Your task to perform on an android device: Is it going to rain today? Image 0: 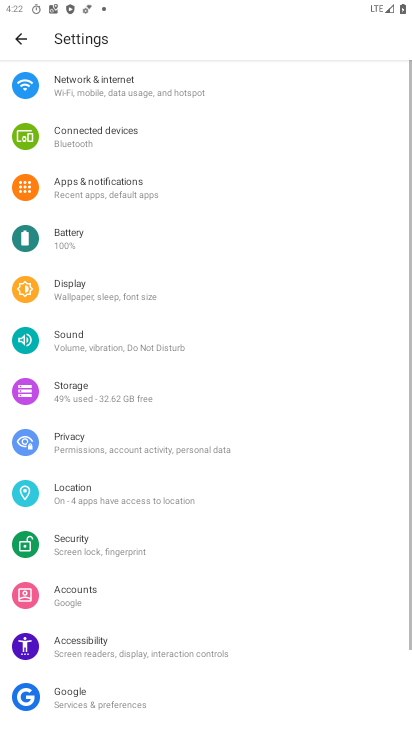
Step 0: press home button
Your task to perform on an android device: Is it going to rain today? Image 1: 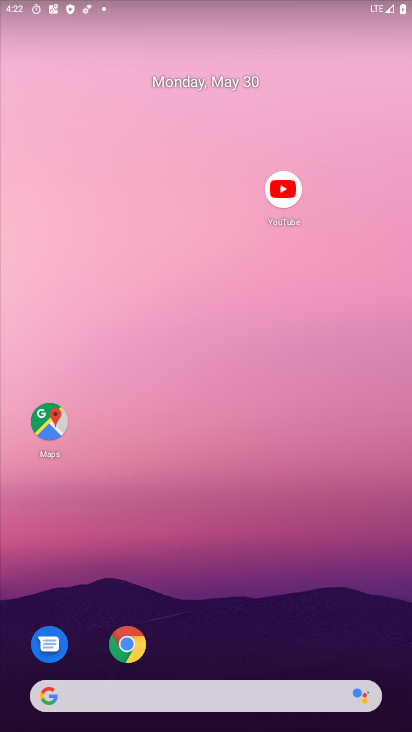
Step 1: click (200, 697)
Your task to perform on an android device: Is it going to rain today? Image 2: 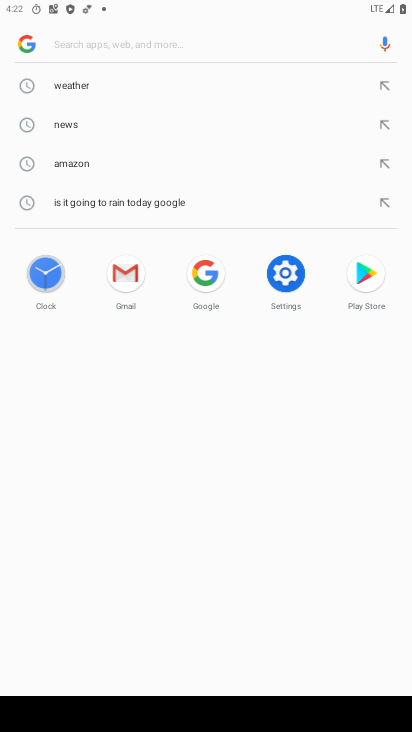
Step 2: click (71, 94)
Your task to perform on an android device: Is it going to rain today? Image 3: 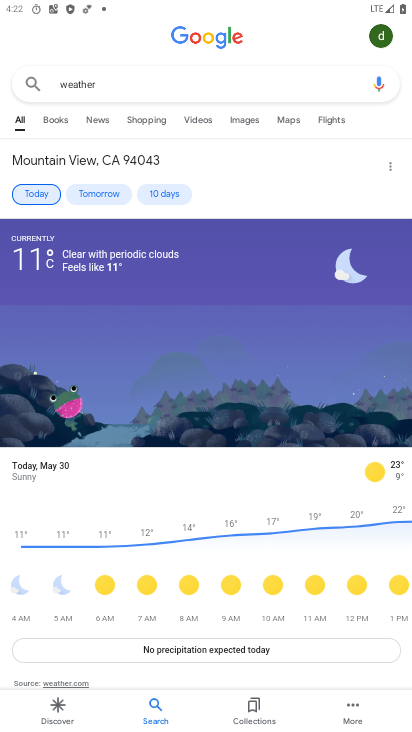
Step 3: task complete